Your task to perform on an android device: Go to display settings Image 0: 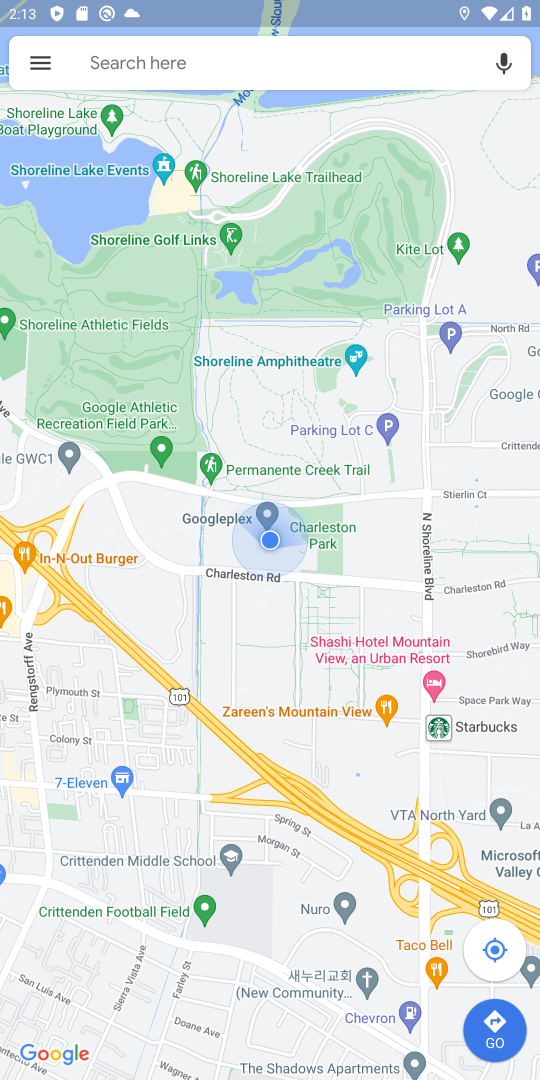
Step 0: press home button
Your task to perform on an android device: Go to display settings Image 1: 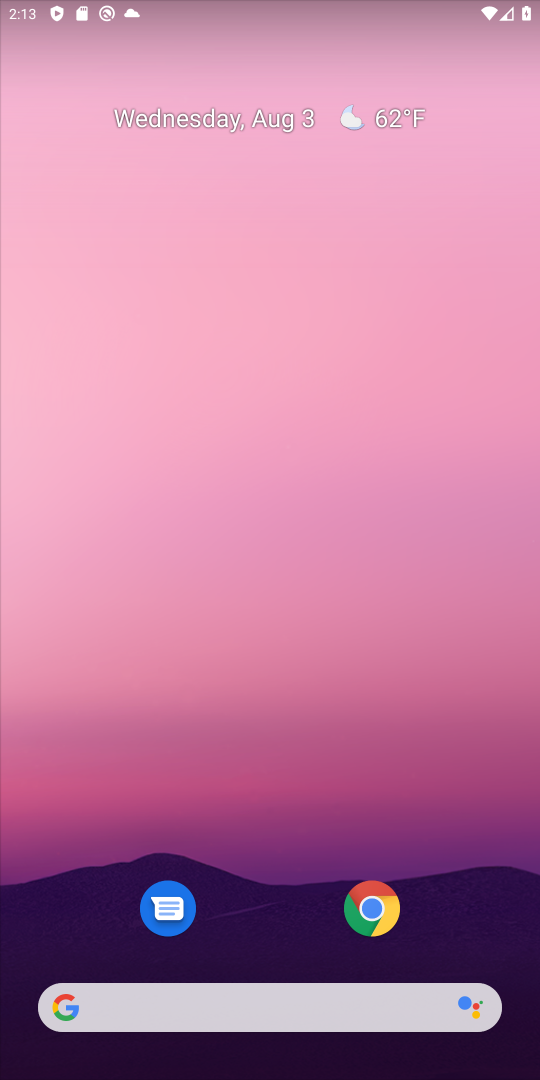
Step 1: drag from (240, 708) to (265, 179)
Your task to perform on an android device: Go to display settings Image 2: 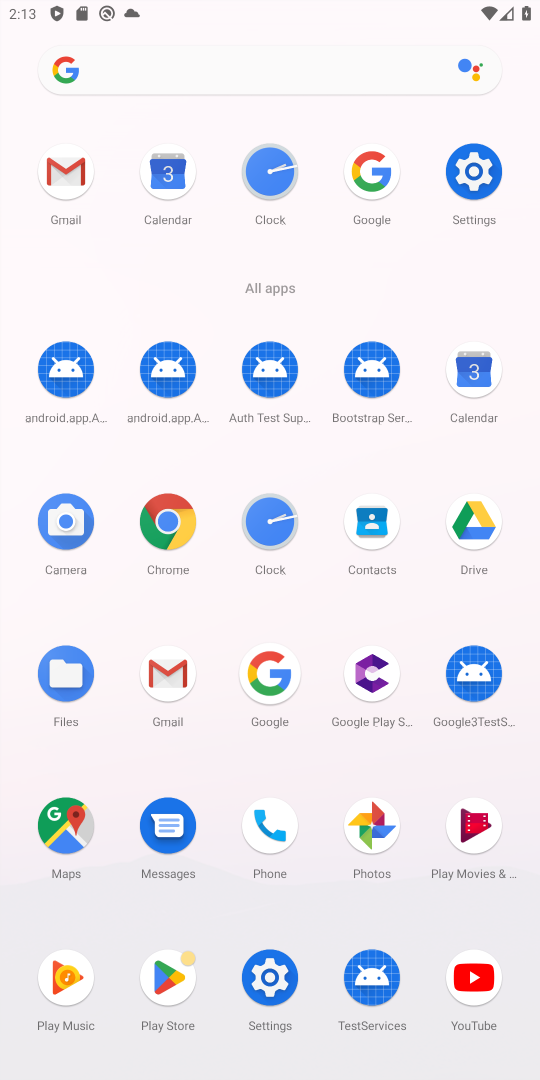
Step 2: click (482, 180)
Your task to perform on an android device: Go to display settings Image 3: 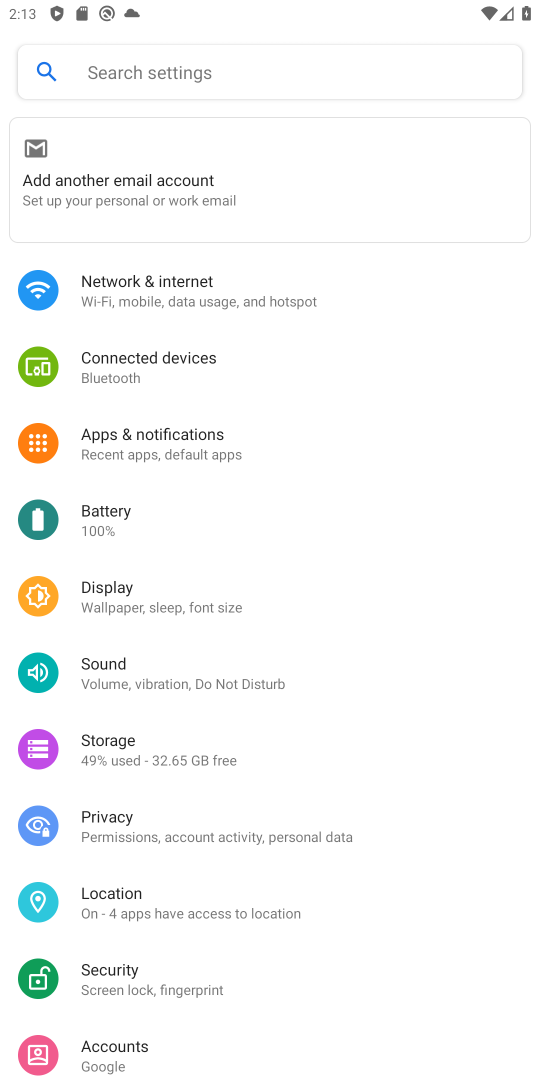
Step 3: click (182, 607)
Your task to perform on an android device: Go to display settings Image 4: 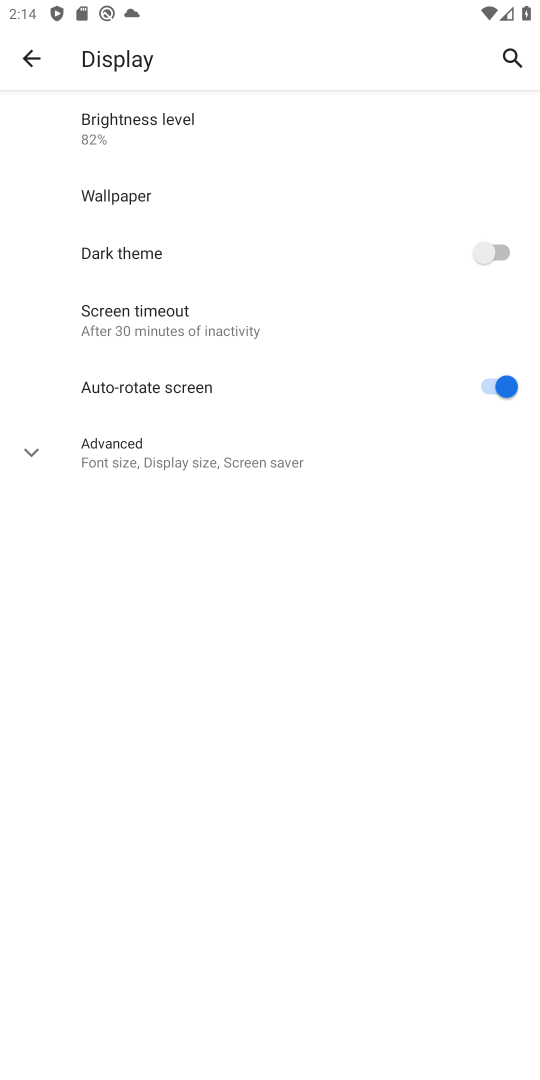
Step 4: task complete